Your task to perform on an android device: allow cookies in the chrome app Image 0: 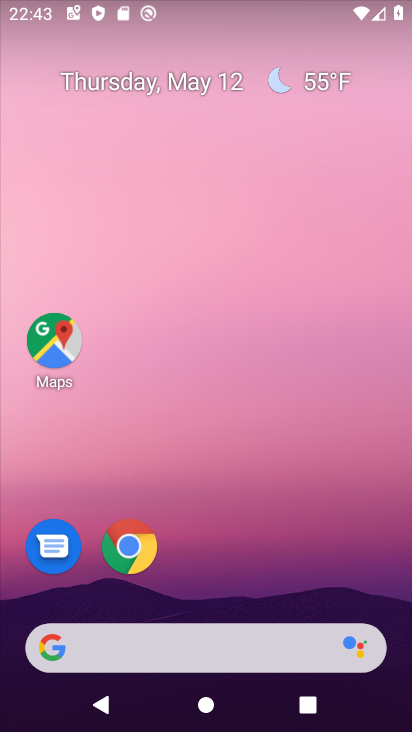
Step 0: click (124, 544)
Your task to perform on an android device: allow cookies in the chrome app Image 1: 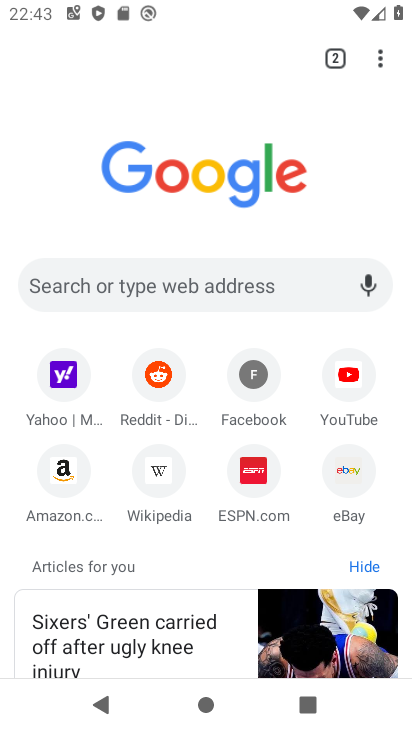
Step 1: click (379, 57)
Your task to perform on an android device: allow cookies in the chrome app Image 2: 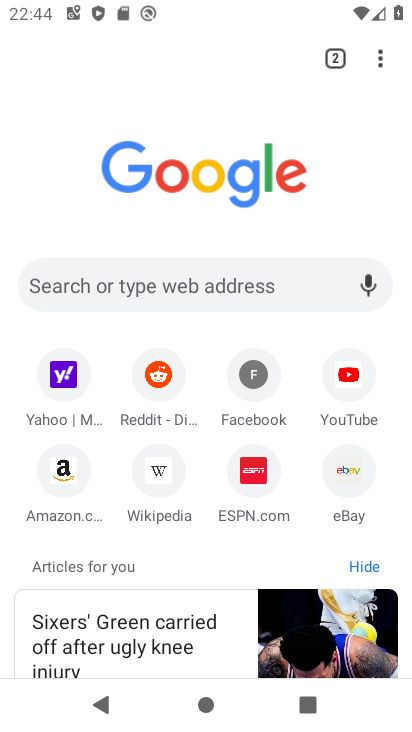
Step 2: click (381, 57)
Your task to perform on an android device: allow cookies in the chrome app Image 3: 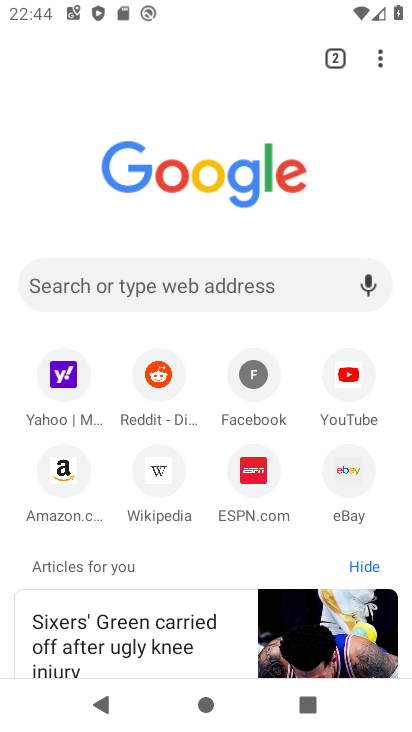
Step 3: click (381, 55)
Your task to perform on an android device: allow cookies in the chrome app Image 4: 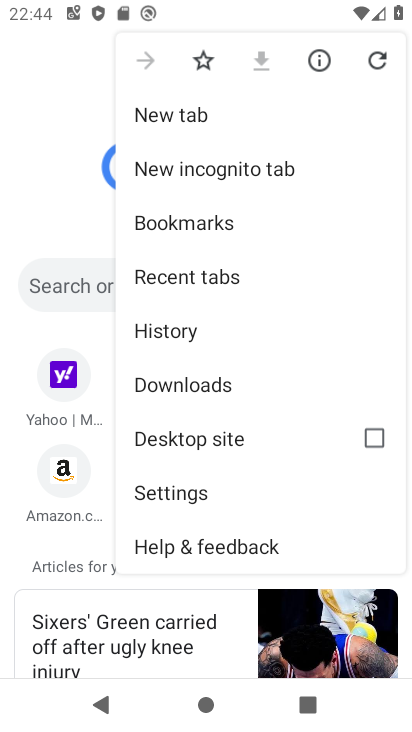
Step 4: click (193, 502)
Your task to perform on an android device: allow cookies in the chrome app Image 5: 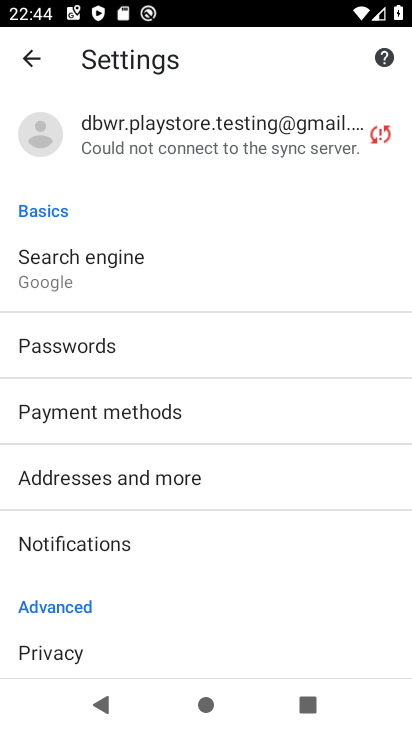
Step 5: drag from (117, 643) to (182, 212)
Your task to perform on an android device: allow cookies in the chrome app Image 6: 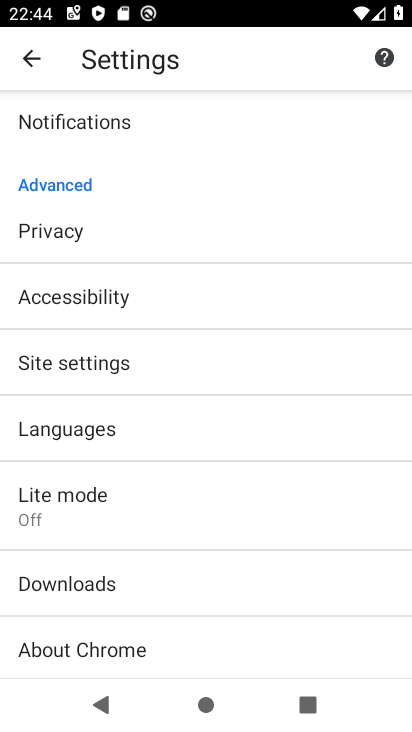
Step 6: click (82, 419)
Your task to perform on an android device: allow cookies in the chrome app Image 7: 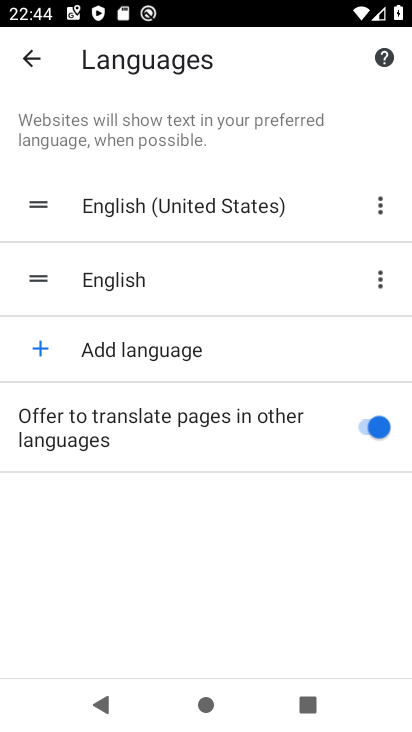
Step 7: click (37, 54)
Your task to perform on an android device: allow cookies in the chrome app Image 8: 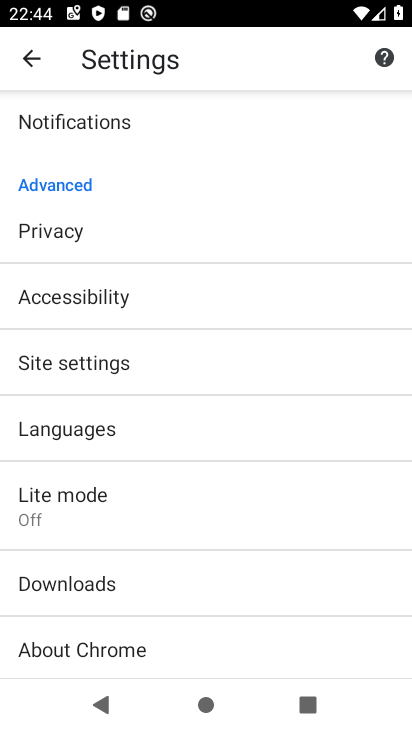
Step 8: click (92, 375)
Your task to perform on an android device: allow cookies in the chrome app Image 9: 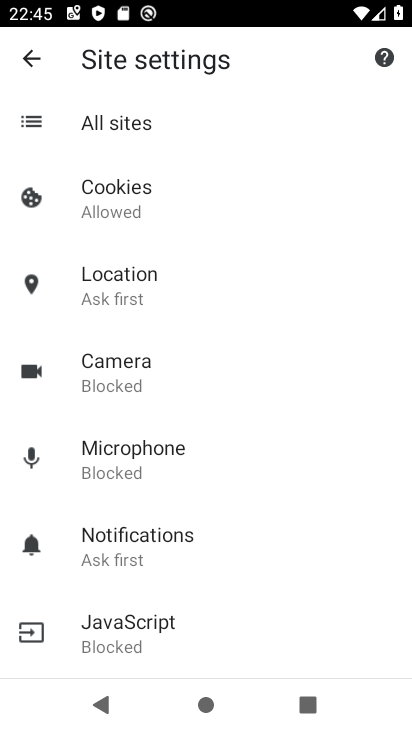
Step 9: click (114, 218)
Your task to perform on an android device: allow cookies in the chrome app Image 10: 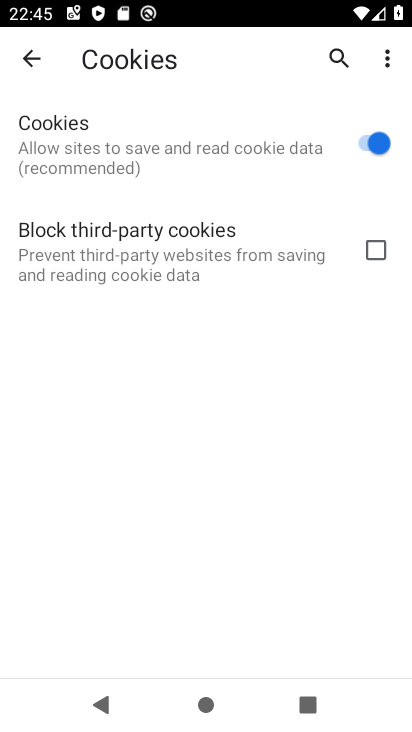
Step 10: task complete